Your task to perform on an android device: turn off priority inbox in the gmail app Image 0: 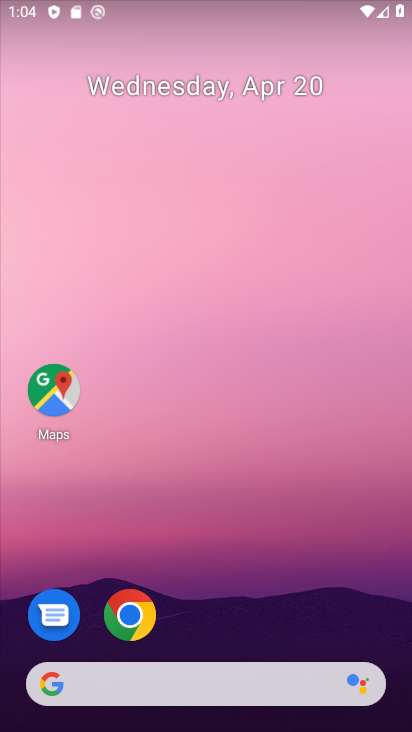
Step 0: click (396, 575)
Your task to perform on an android device: turn off priority inbox in the gmail app Image 1: 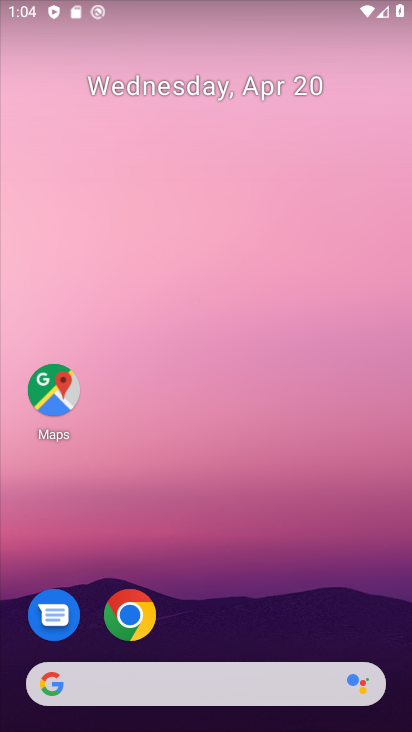
Step 1: drag from (384, 310) to (360, 181)
Your task to perform on an android device: turn off priority inbox in the gmail app Image 2: 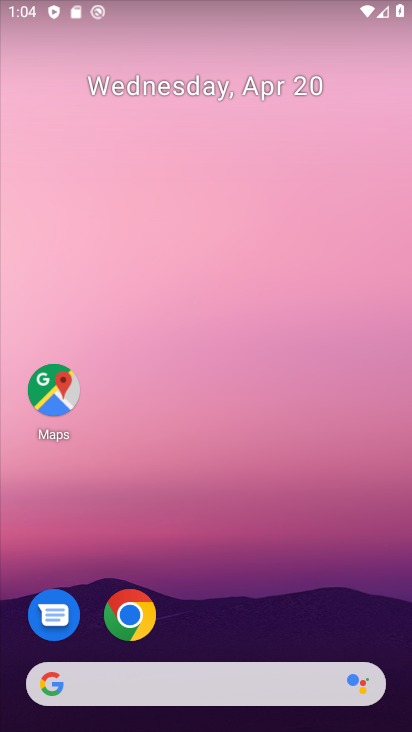
Step 2: drag from (377, 621) to (315, 53)
Your task to perform on an android device: turn off priority inbox in the gmail app Image 3: 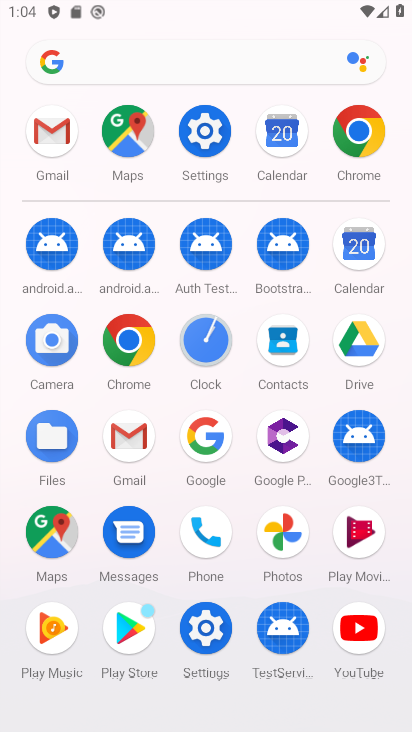
Step 3: click (120, 428)
Your task to perform on an android device: turn off priority inbox in the gmail app Image 4: 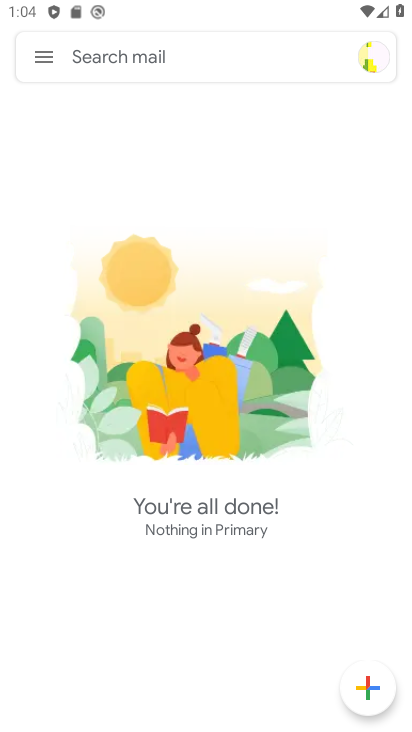
Step 4: click (123, 60)
Your task to perform on an android device: turn off priority inbox in the gmail app Image 5: 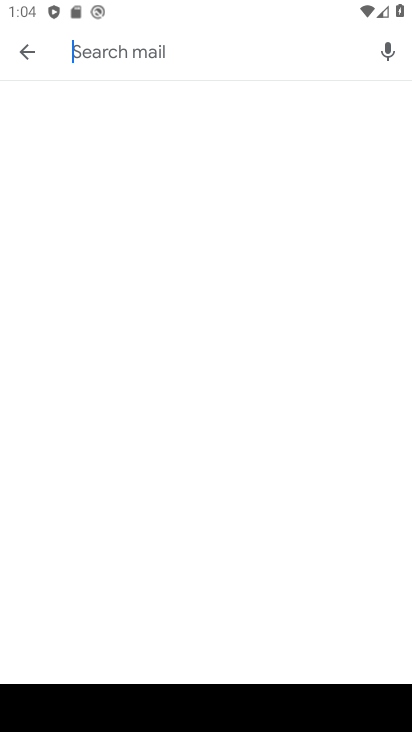
Step 5: click (32, 49)
Your task to perform on an android device: turn off priority inbox in the gmail app Image 6: 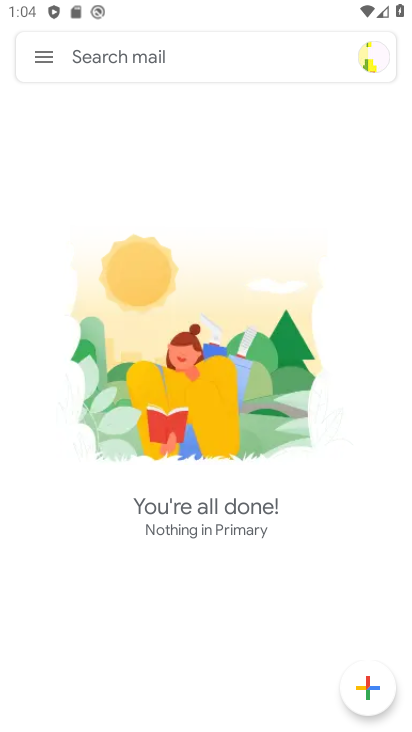
Step 6: click (34, 51)
Your task to perform on an android device: turn off priority inbox in the gmail app Image 7: 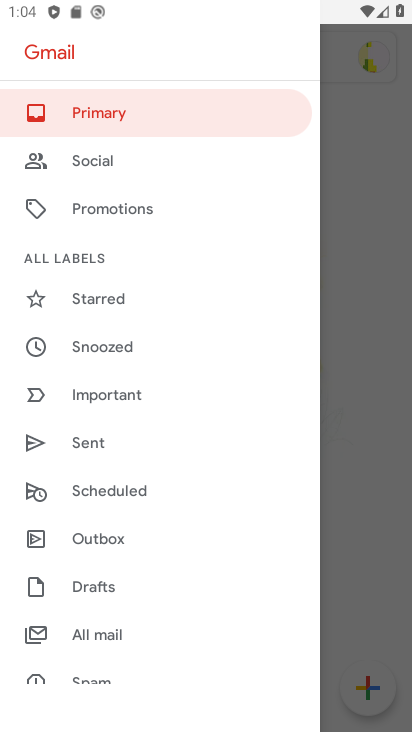
Step 7: drag from (211, 593) to (182, 185)
Your task to perform on an android device: turn off priority inbox in the gmail app Image 8: 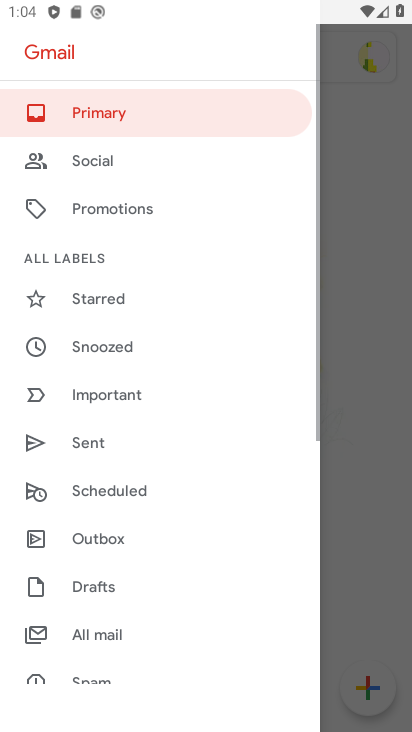
Step 8: drag from (206, 607) to (223, 164)
Your task to perform on an android device: turn off priority inbox in the gmail app Image 9: 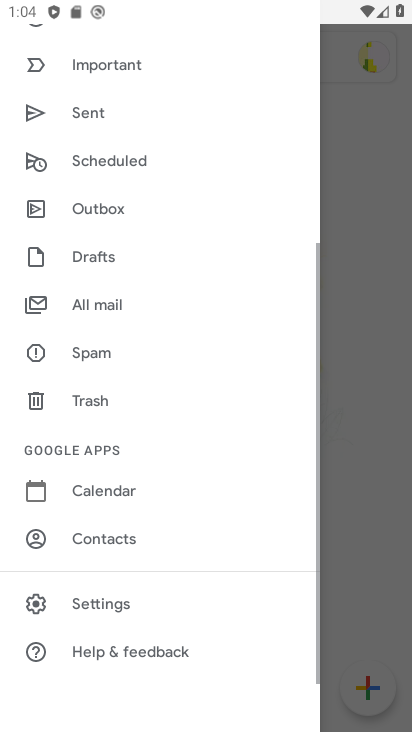
Step 9: click (99, 604)
Your task to perform on an android device: turn off priority inbox in the gmail app Image 10: 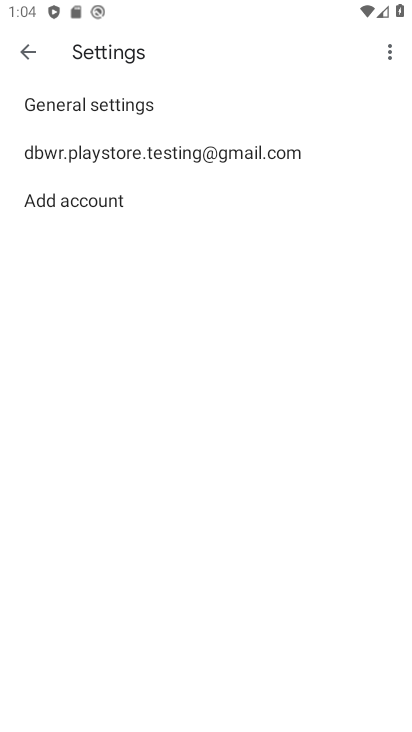
Step 10: click (110, 148)
Your task to perform on an android device: turn off priority inbox in the gmail app Image 11: 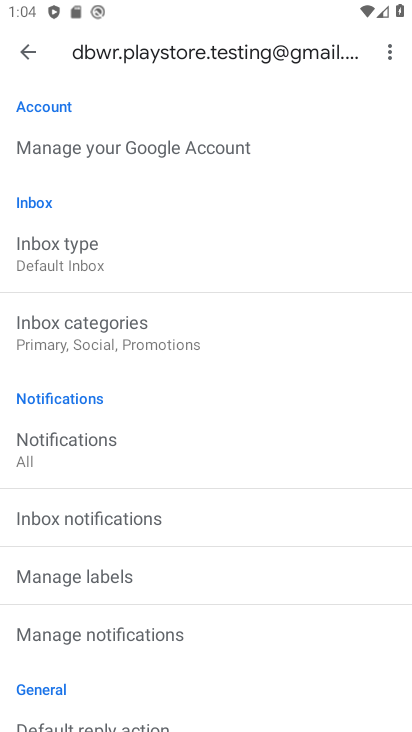
Step 11: click (75, 248)
Your task to perform on an android device: turn off priority inbox in the gmail app Image 12: 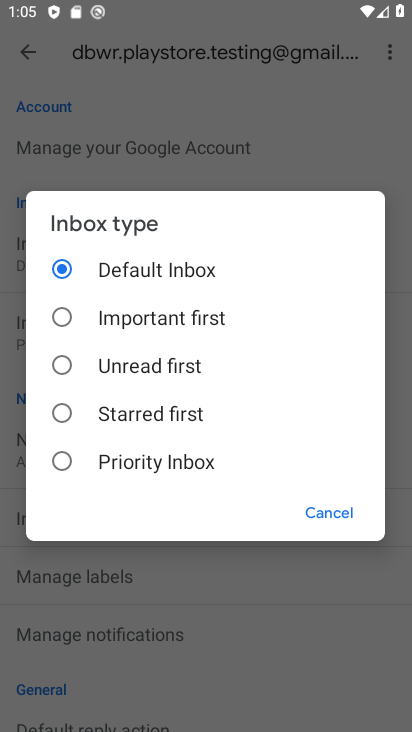
Step 12: click (355, 119)
Your task to perform on an android device: turn off priority inbox in the gmail app Image 13: 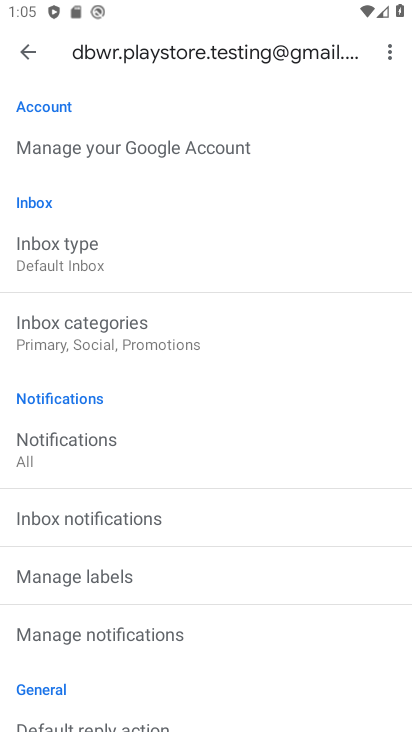
Step 13: task complete